Your task to perform on an android device: Search for vegetarian restaurants on Maps Image 0: 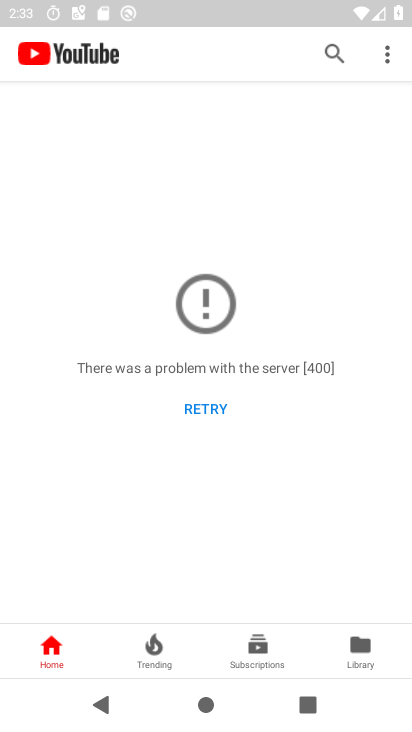
Step 0: press home button
Your task to perform on an android device: Search for vegetarian restaurants on Maps Image 1: 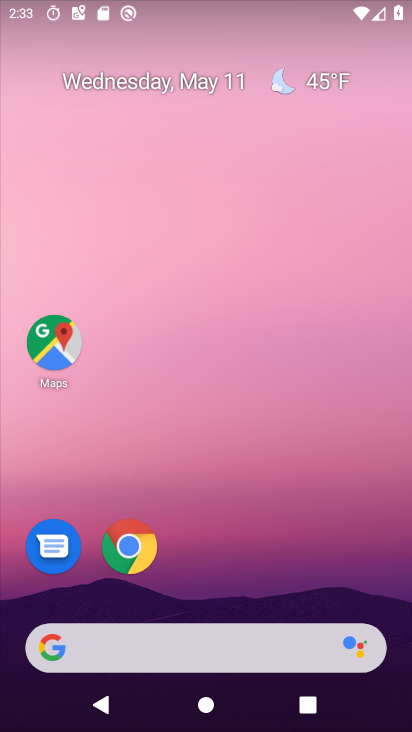
Step 1: drag from (203, 592) to (236, 31)
Your task to perform on an android device: Search for vegetarian restaurants on Maps Image 2: 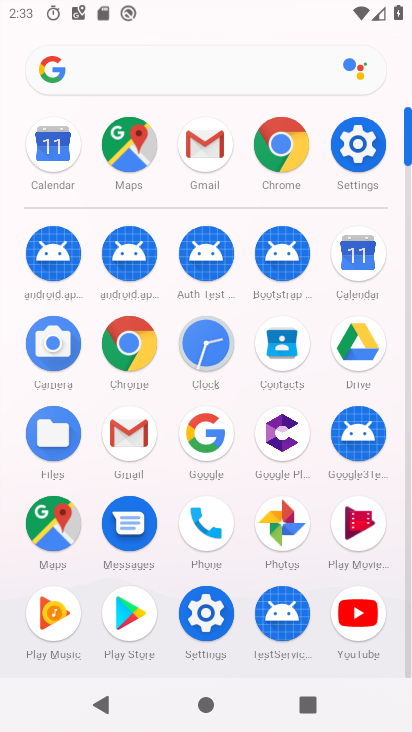
Step 2: click (44, 524)
Your task to perform on an android device: Search for vegetarian restaurants on Maps Image 3: 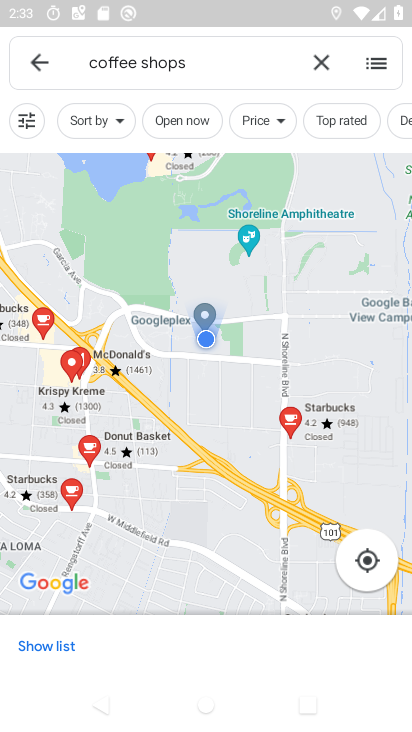
Step 3: click (153, 71)
Your task to perform on an android device: Search for vegetarian restaurants on Maps Image 4: 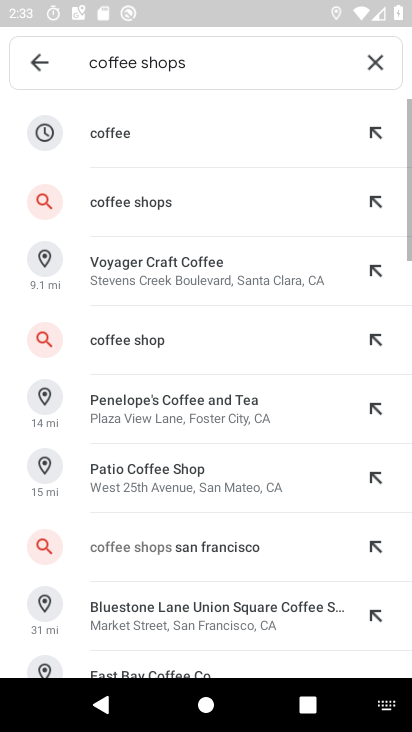
Step 4: click (381, 62)
Your task to perform on an android device: Search for vegetarian restaurants on Maps Image 5: 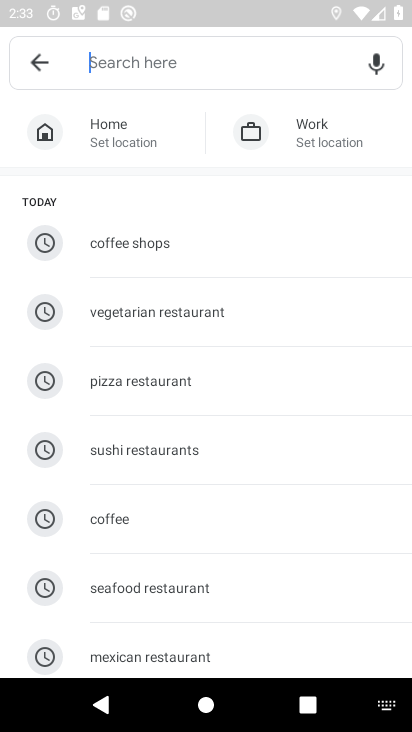
Step 5: type "vegetarian restaurants"
Your task to perform on an android device: Search for vegetarian restaurants on Maps Image 6: 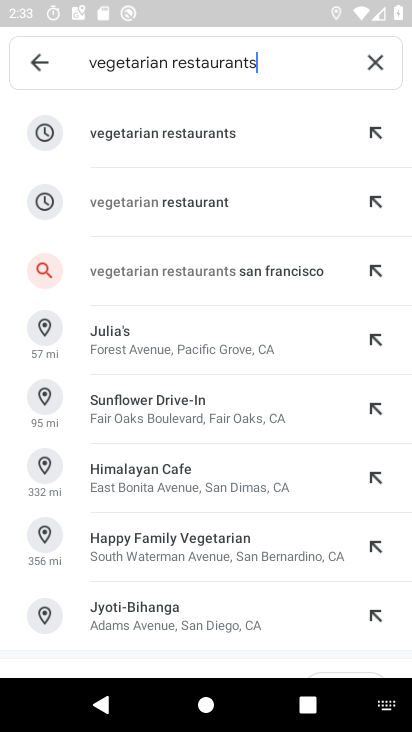
Step 6: click (165, 122)
Your task to perform on an android device: Search for vegetarian restaurants on Maps Image 7: 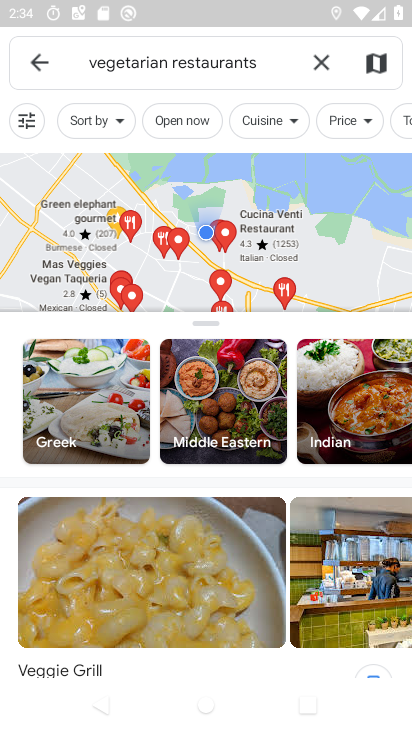
Step 7: task complete